Your task to perform on an android device: Show me popular videos on Youtube Image 0: 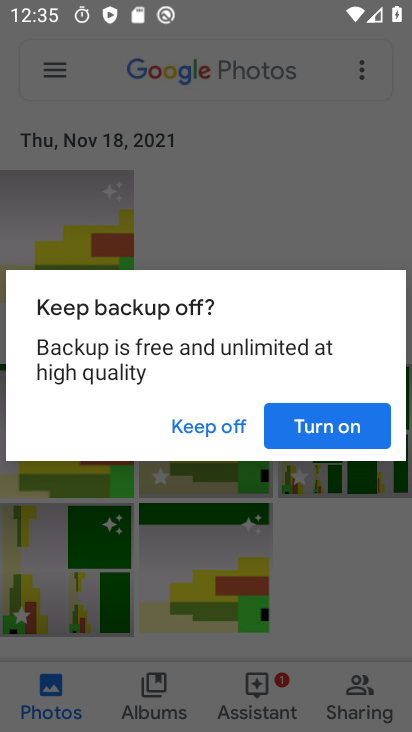
Step 0: press home button
Your task to perform on an android device: Show me popular videos on Youtube Image 1: 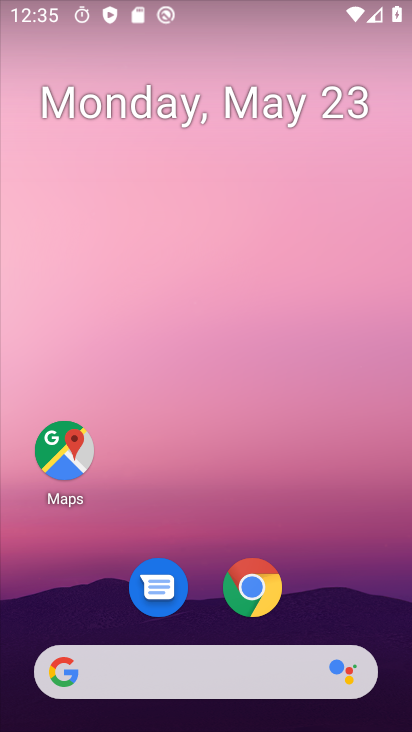
Step 1: drag from (182, 595) to (241, 34)
Your task to perform on an android device: Show me popular videos on Youtube Image 2: 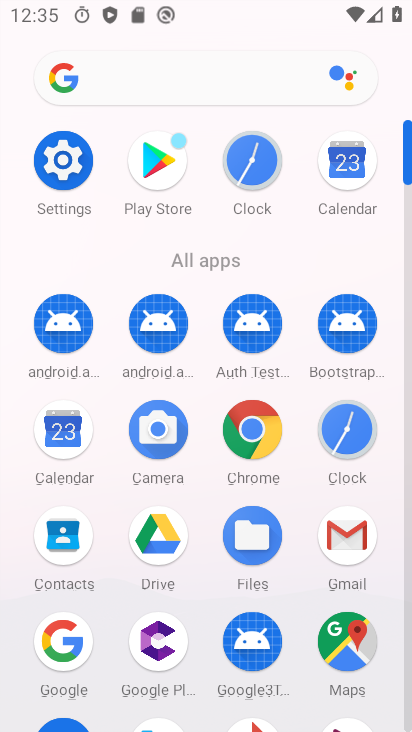
Step 2: drag from (206, 590) to (318, 13)
Your task to perform on an android device: Show me popular videos on Youtube Image 3: 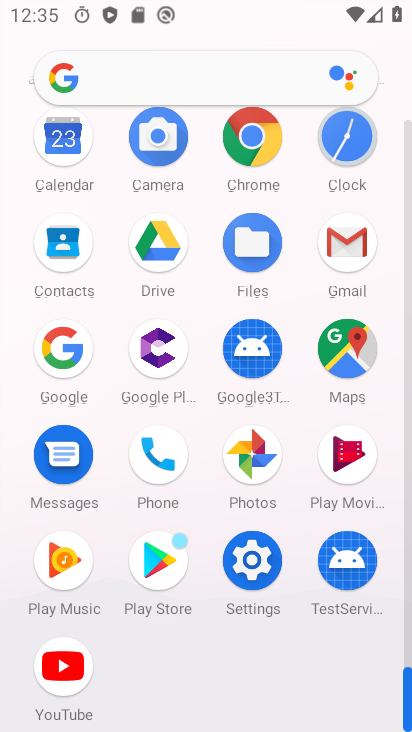
Step 3: click (57, 663)
Your task to perform on an android device: Show me popular videos on Youtube Image 4: 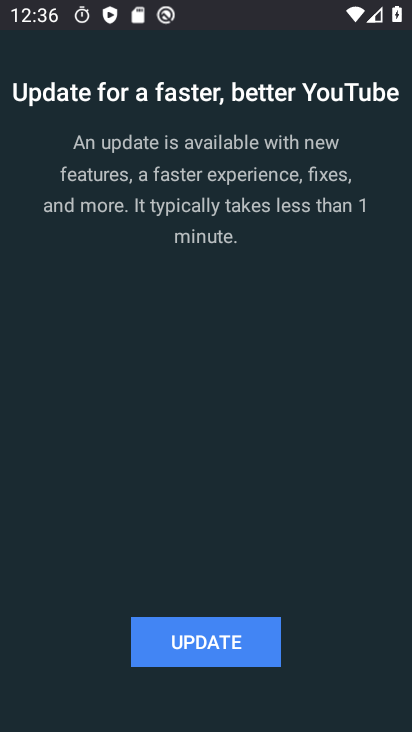
Step 4: click (217, 638)
Your task to perform on an android device: Show me popular videos on Youtube Image 5: 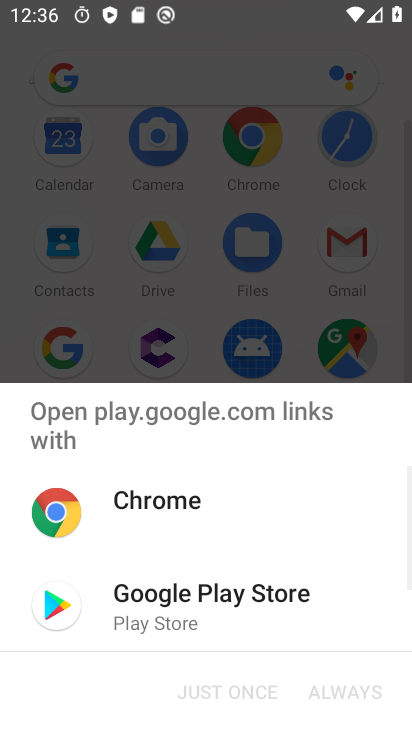
Step 5: click (166, 610)
Your task to perform on an android device: Show me popular videos on Youtube Image 6: 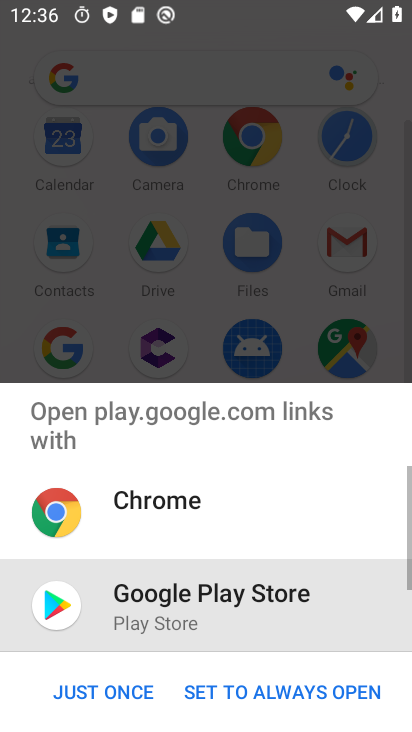
Step 6: click (91, 705)
Your task to perform on an android device: Show me popular videos on Youtube Image 7: 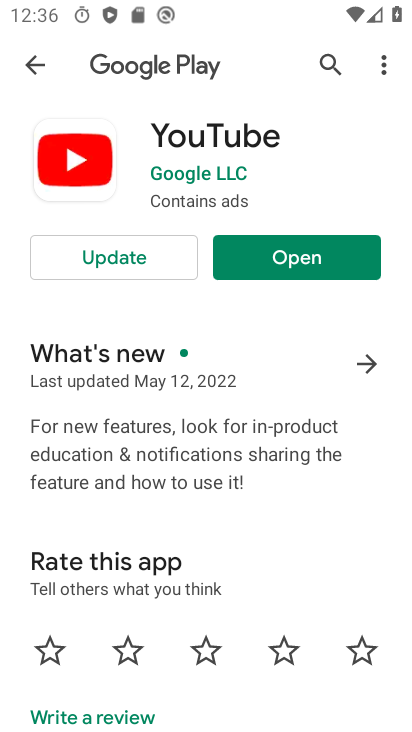
Step 7: click (118, 252)
Your task to perform on an android device: Show me popular videos on Youtube Image 8: 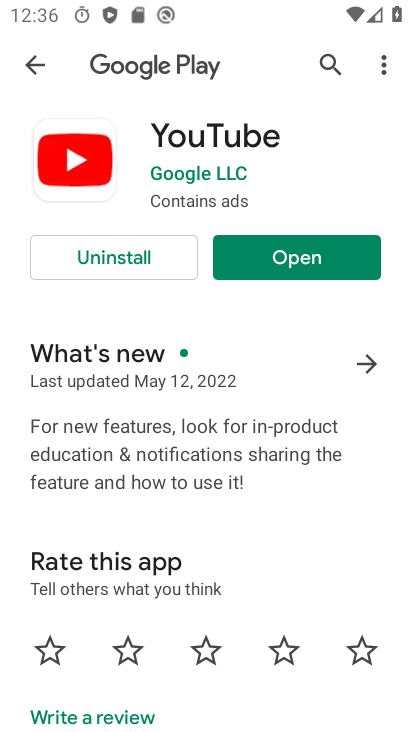
Step 8: click (305, 250)
Your task to perform on an android device: Show me popular videos on Youtube Image 9: 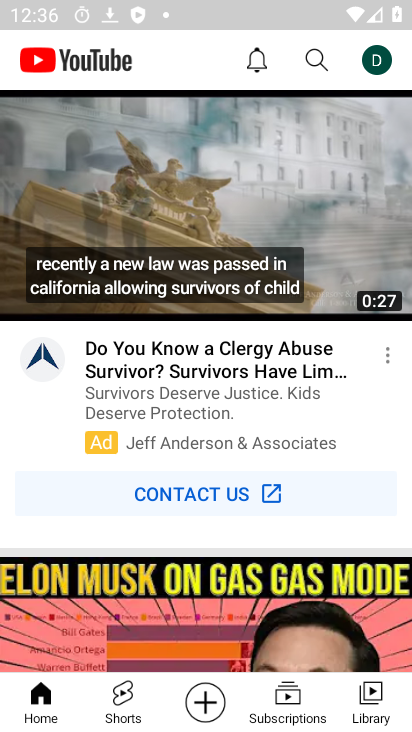
Step 9: drag from (89, 161) to (32, 642)
Your task to perform on an android device: Show me popular videos on Youtube Image 10: 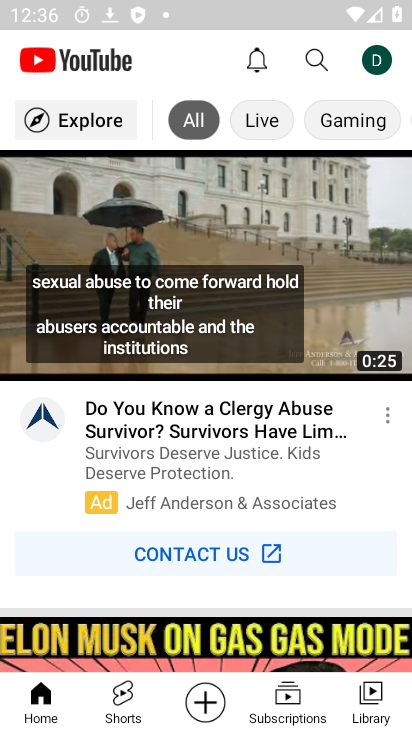
Step 10: click (68, 104)
Your task to perform on an android device: Show me popular videos on Youtube Image 11: 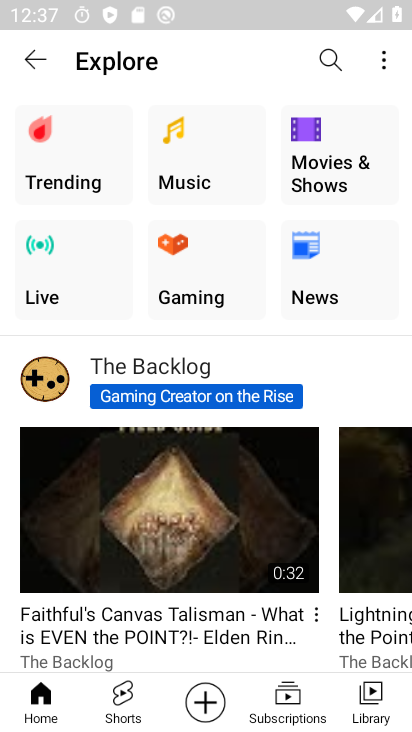
Step 11: click (46, 137)
Your task to perform on an android device: Show me popular videos on Youtube Image 12: 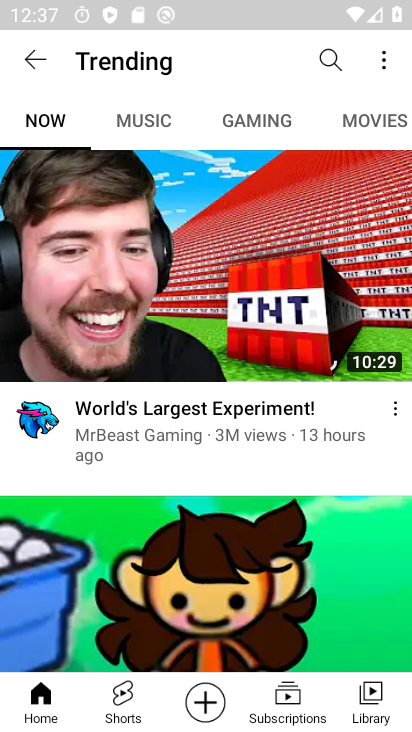
Step 12: click (146, 239)
Your task to perform on an android device: Show me popular videos on Youtube Image 13: 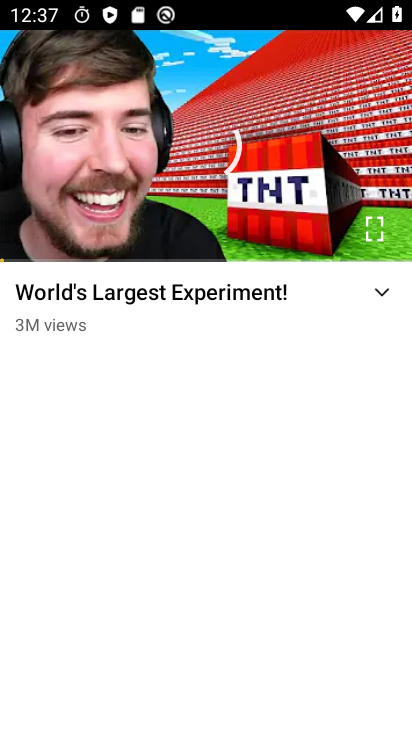
Step 13: task complete